Your task to perform on an android device: Open ESPN.com Image 0: 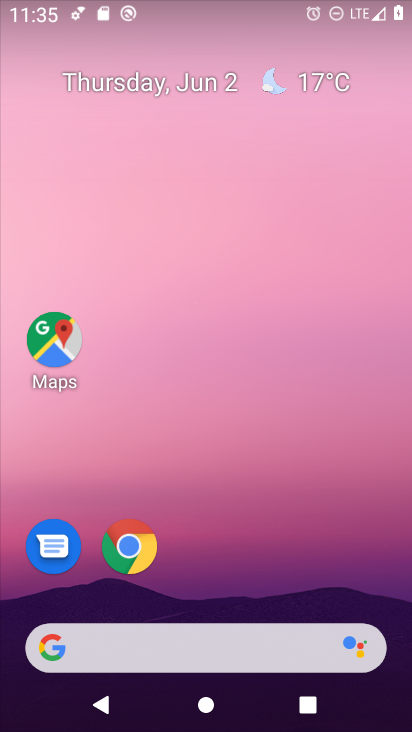
Step 0: drag from (231, 528) to (159, 0)
Your task to perform on an android device: Open ESPN.com Image 1: 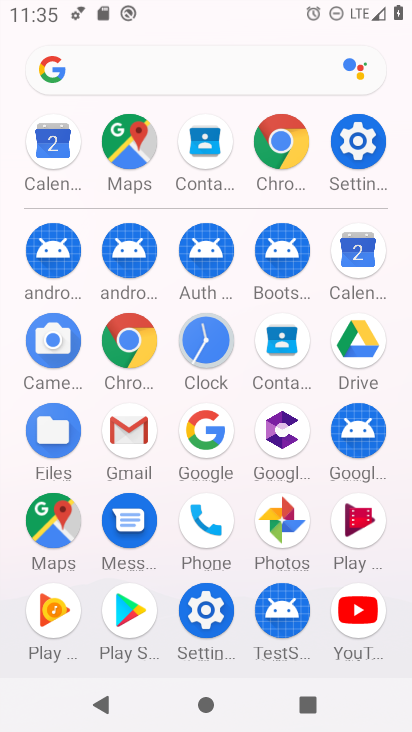
Step 1: drag from (6, 558) to (6, 281)
Your task to perform on an android device: Open ESPN.com Image 2: 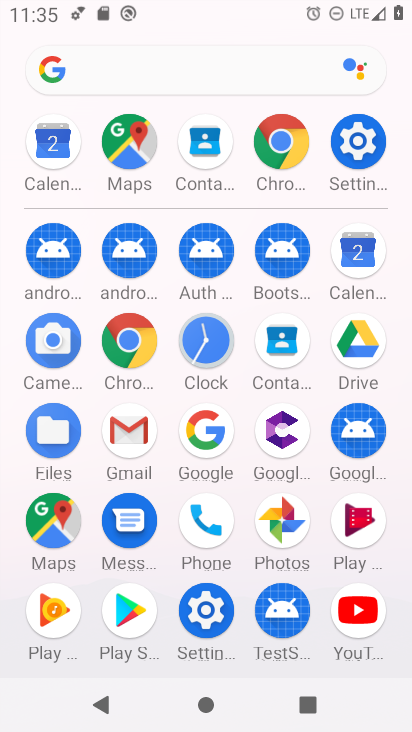
Step 2: click (126, 334)
Your task to perform on an android device: Open ESPN.com Image 3: 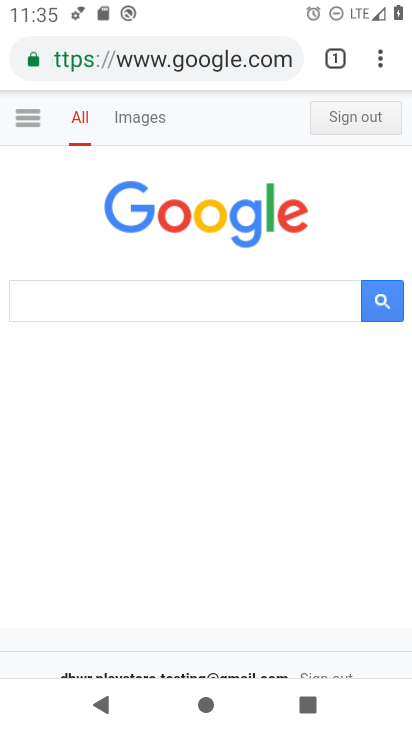
Step 3: click (163, 55)
Your task to perform on an android device: Open ESPN.com Image 4: 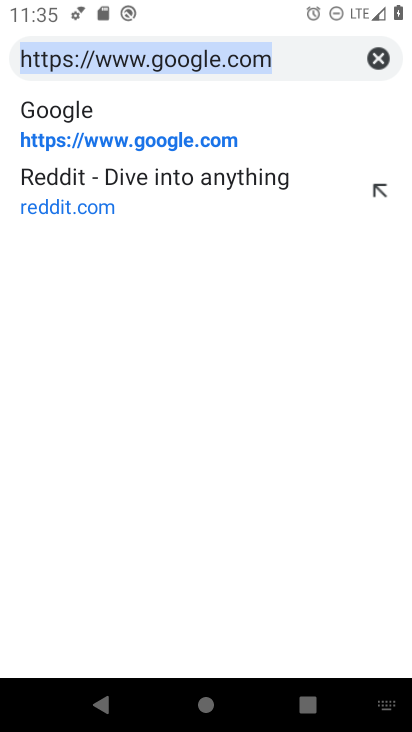
Step 4: click (380, 54)
Your task to perform on an android device: Open ESPN.com Image 5: 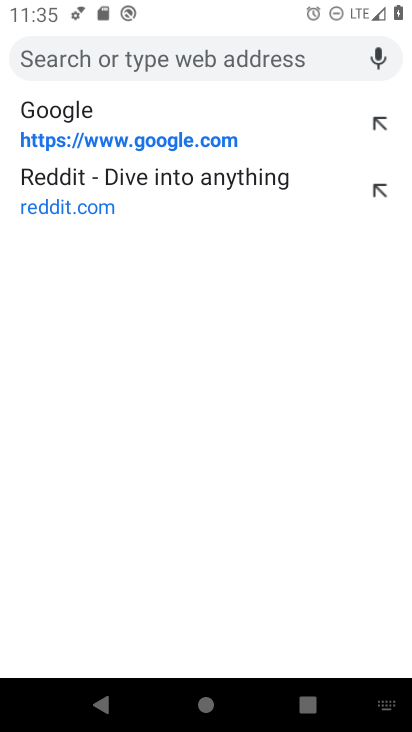
Step 5: type "ESPN.com"
Your task to perform on an android device: Open ESPN.com Image 6: 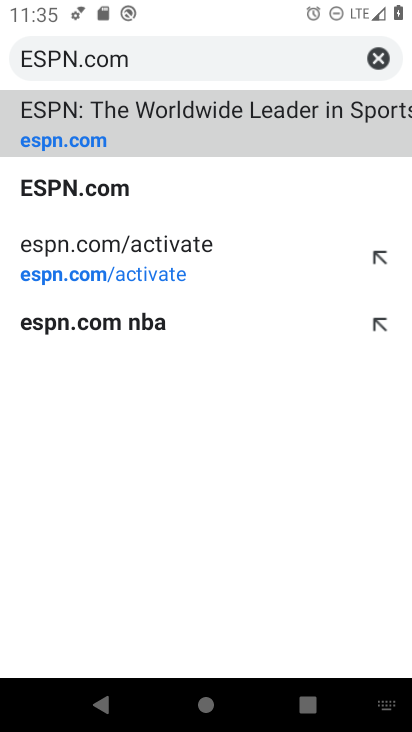
Step 6: click (148, 127)
Your task to perform on an android device: Open ESPN.com Image 7: 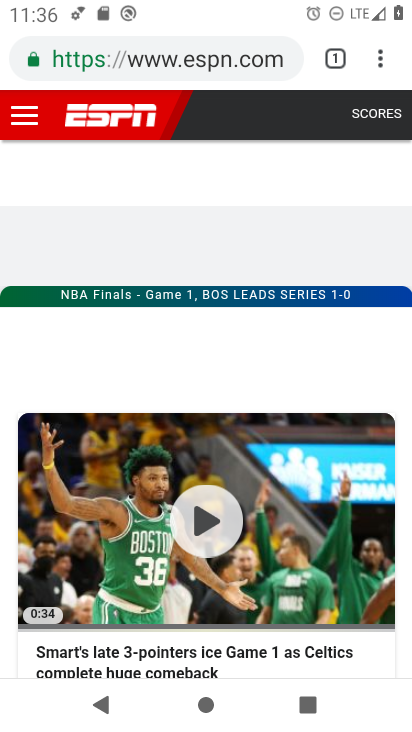
Step 7: task complete